Your task to perform on an android device: empty trash in the gmail app Image 0: 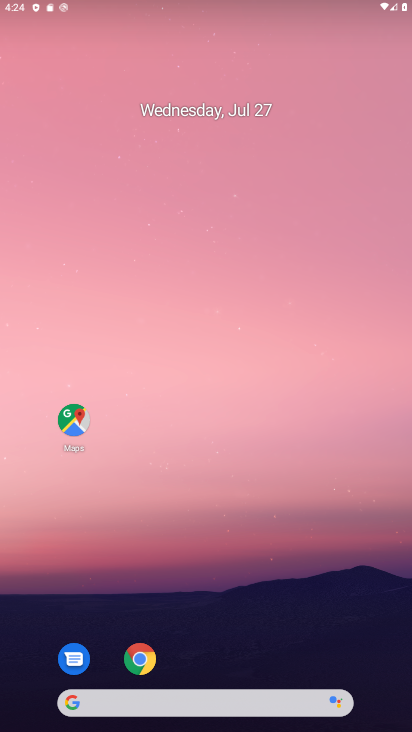
Step 0: click (409, 616)
Your task to perform on an android device: empty trash in the gmail app Image 1: 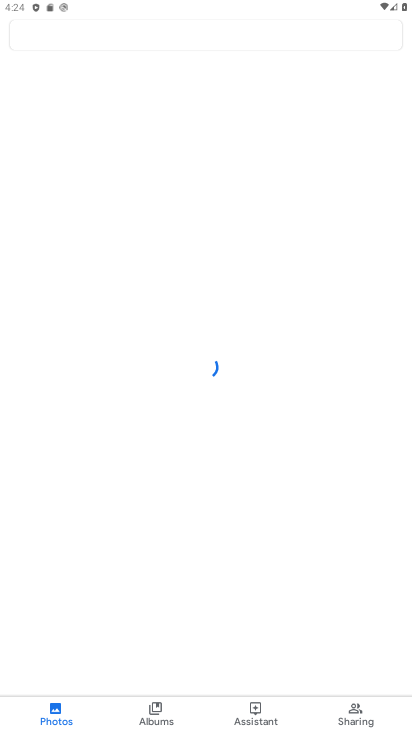
Step 1: press home button
Your task to perform on an android device: empty trash in the gmail app Image 2: 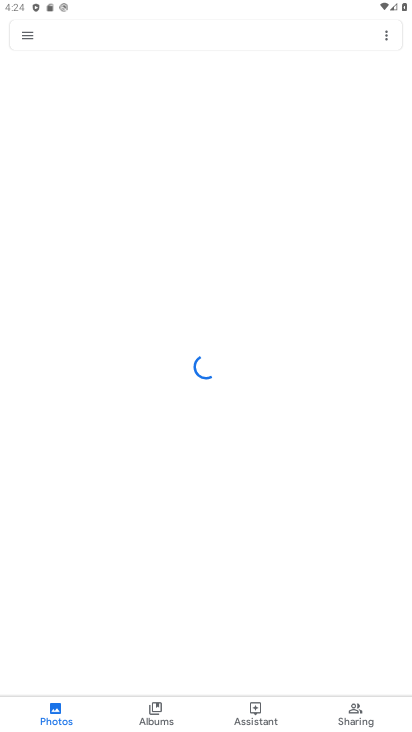
Step 2: drag from (251, 511) to (262, 124)
Your task to perform on an android device: empty trash in the gmail app Image 3: 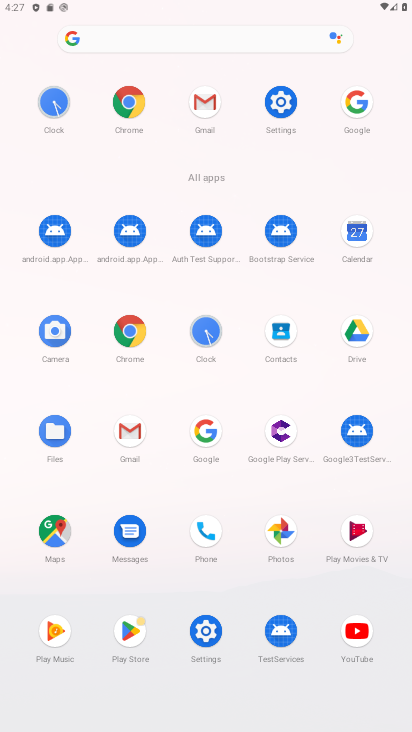
Step 3: click (119, 442)
Your task to perform on an android device: empty trash in the gmail app Image 4: 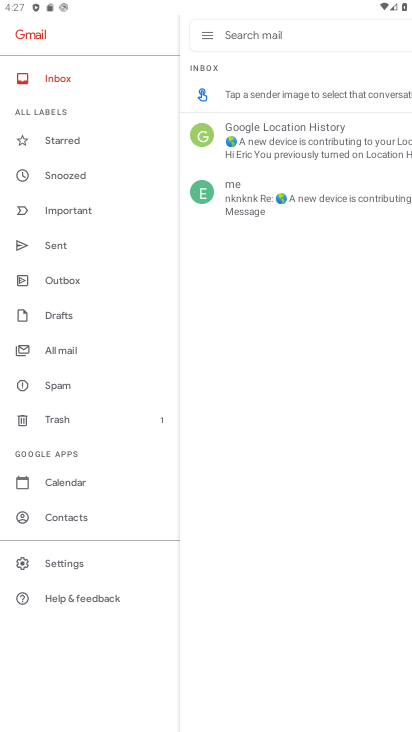
Step 4: click (59, 561)
Your task to perform on an android device: empty trash in the gmail app Image 5: 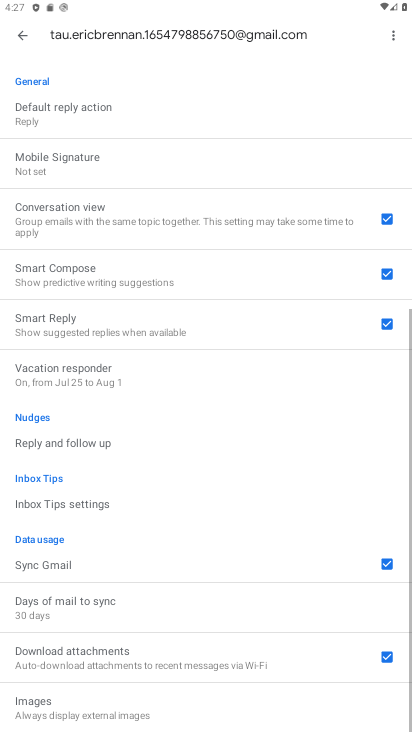
Step 5: click (28, 43)
Your task to perform on an android device: empty trash in the gmail app Image 6: 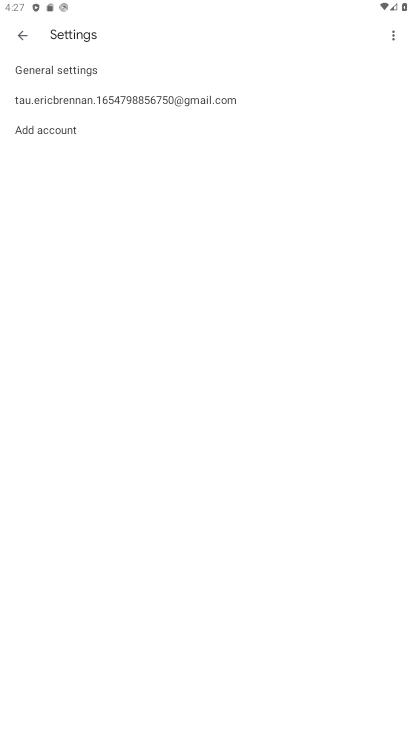
Step 6: click (28, 45)
Your task to perform on an android device: empty trash in the gmail app Image 7: 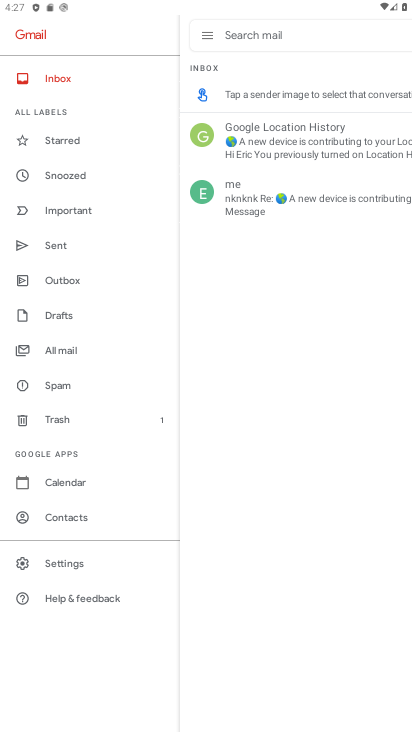
Step 7: click (57, 432)
Your task to perform on an android device: empty trash in the gmail app Image 8: 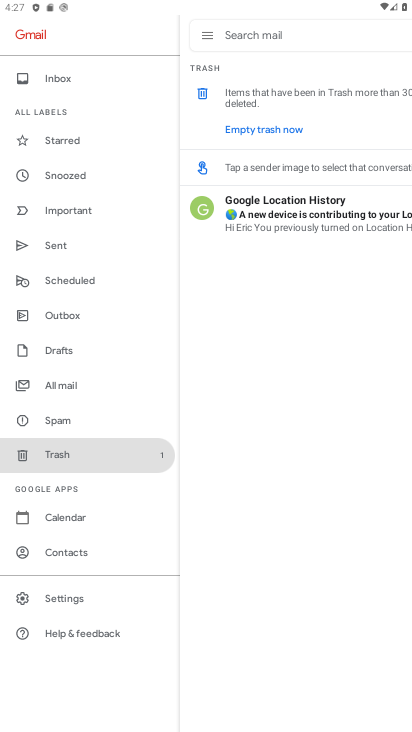
Step 8: click (229, 202)
Your task to perform on an android device: empty trash in the gmail app Image 9: 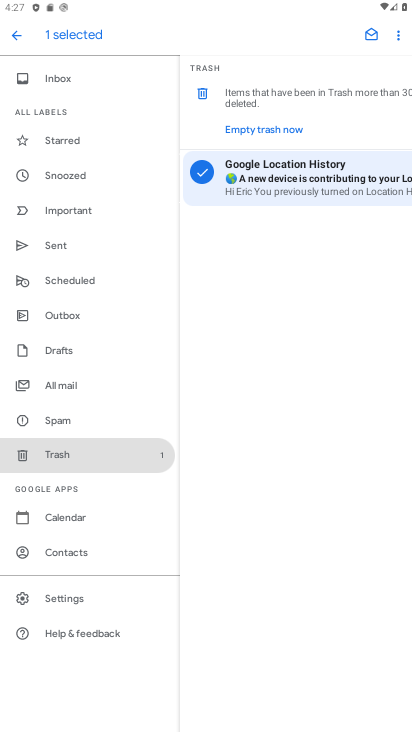
Step 9: click (27, 29)
Your task to perform on an android device: empty trash in the gmail app Image 10: 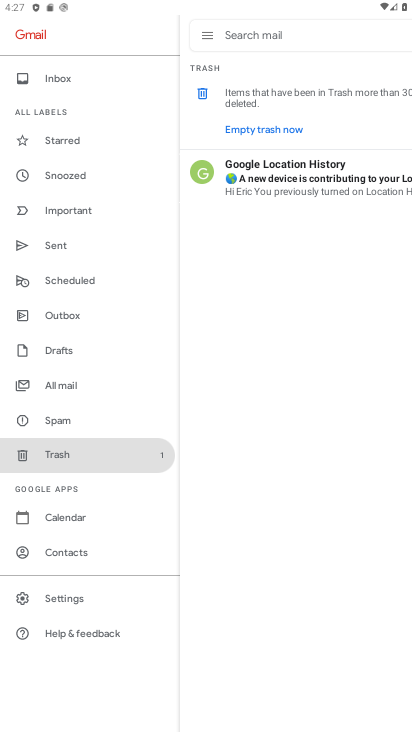
Step 10: click (196, 32)
Your task to perform on an android device: empty trash in the gmail app Image 11: 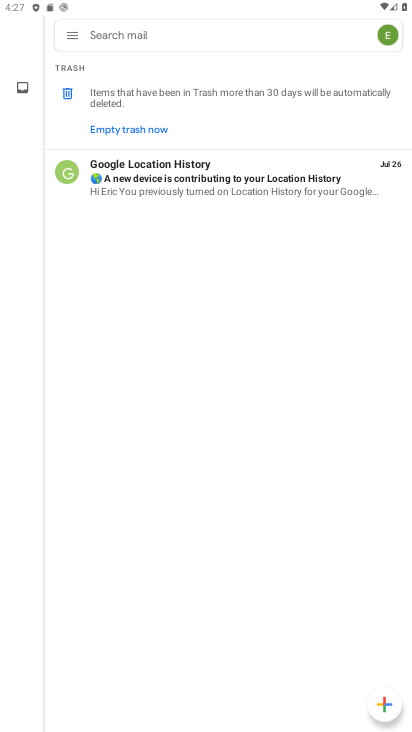
Step 11: click (216, 182)
Your task to perform on an android device: empty trash in the gmail app Image 12: 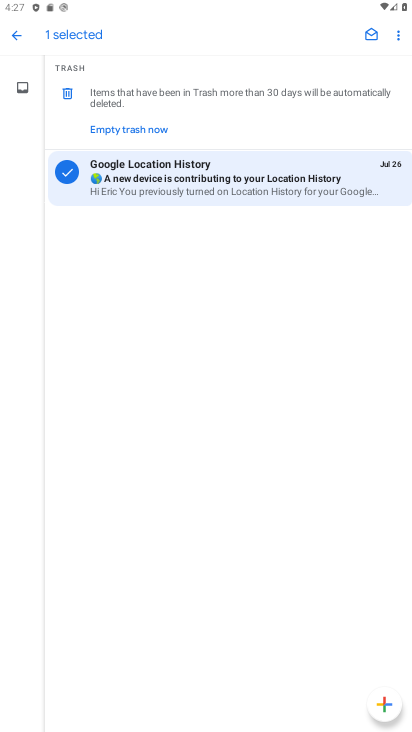
Step 12: click (393, 27)
Your task to perform on an android device: empty trash in the gmail app Image 13: 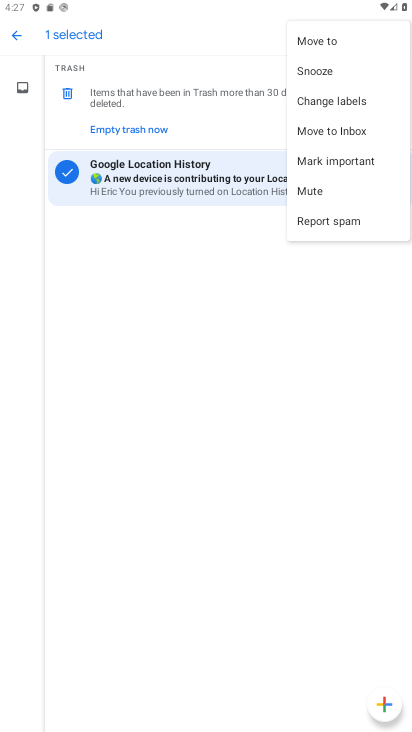
Step 13: click (148, 255)
Your task to perform on an android device: empty trash in the gmail app Image 14: 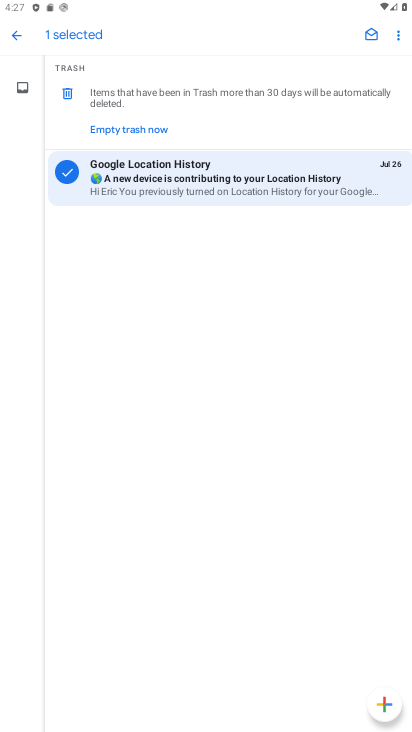
Step 14: click (62, 86)
Your task to perform on an android device: empty trash in the gmail app Image 15: 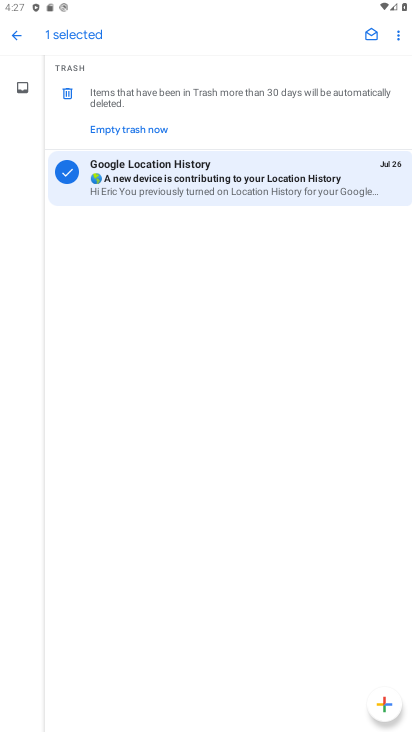
Step 15: click (128, 128)
Your task to perform on an android device: empty trash in the gmail app Image 16: 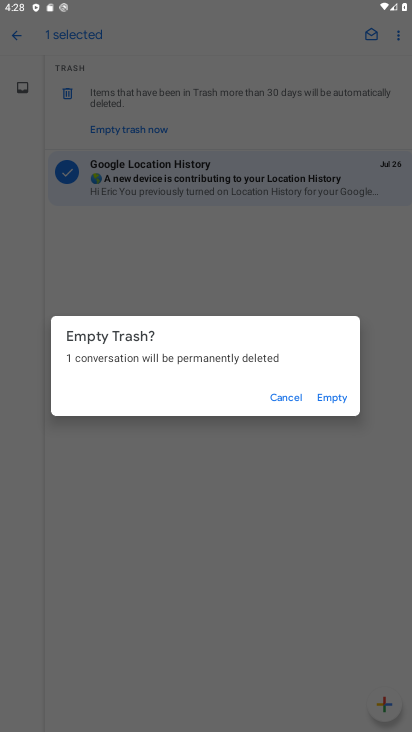
Step 16: click (328, 409)
Your task to perform on an android device: empty trash in the gmail app Image 17: 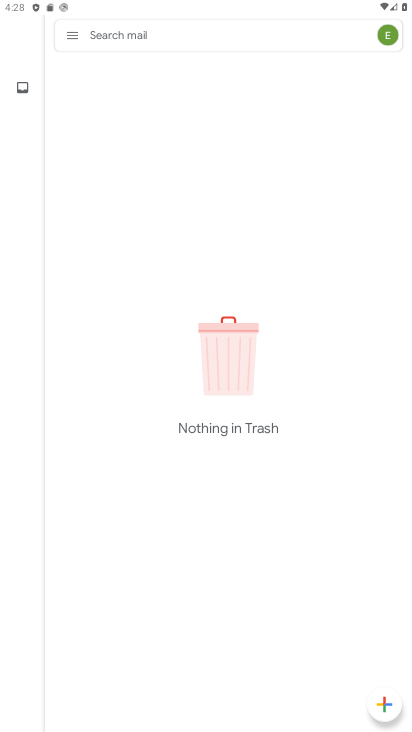
Step 17: task complete